Your task to perform on an android device: delete location history Image 0: 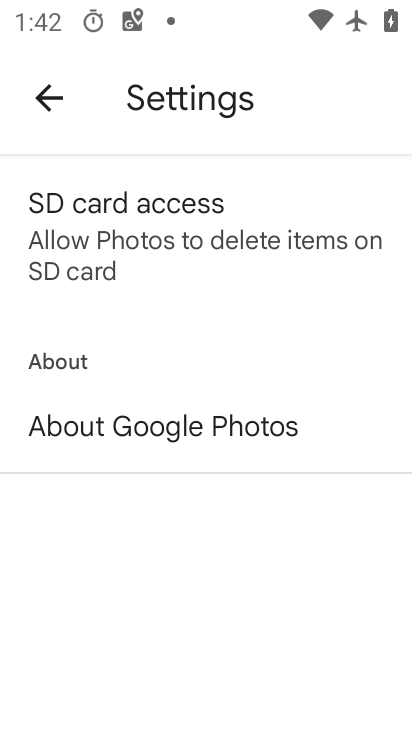
Step 0: press home button
Your task to perform on an android device: delete location history Image 1: 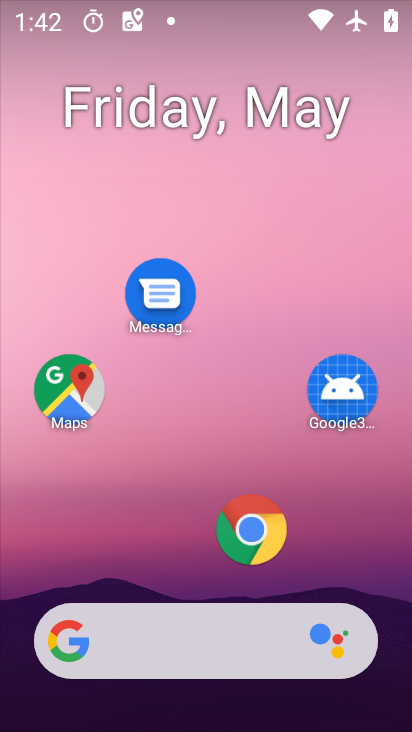
Step 1: drag from (229, 693) to (271, 431)
Your task to perform on an android device: delete location history Image 2: 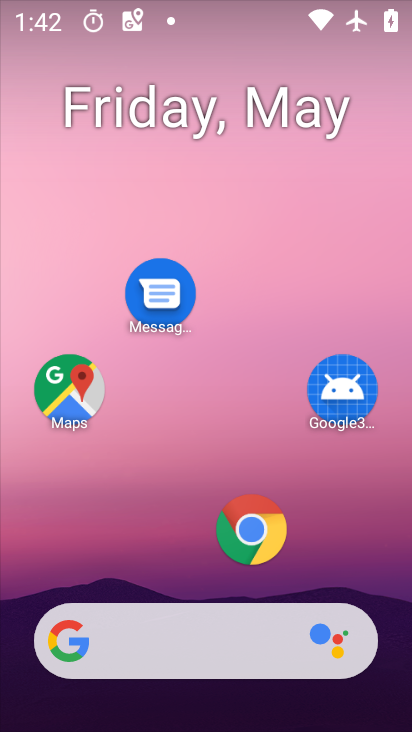
Step 2: drag from (184, 701) to (166, 202)
Your task to perform on an android device: delete location history Image 3: 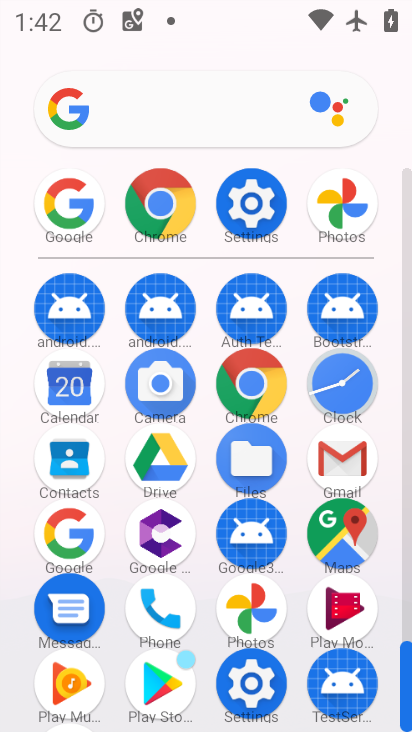
Step 3: click (233, 204)
Your task to perform on an android device: delete location history Image 4: 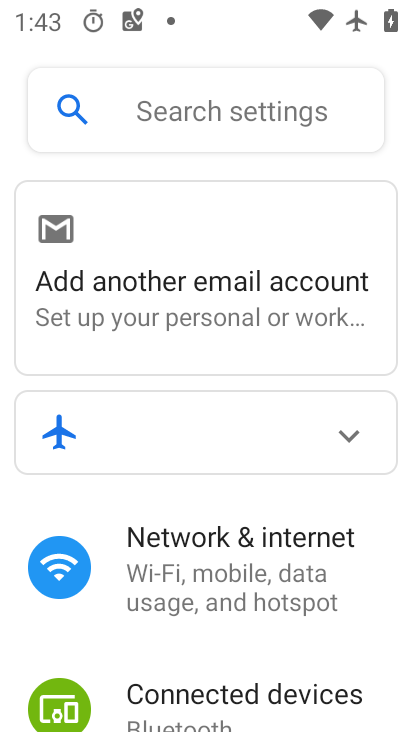
Step 4: drag from (243, 580) to (172, 177)
Your task to perform on an android device: delete location history Image 5: 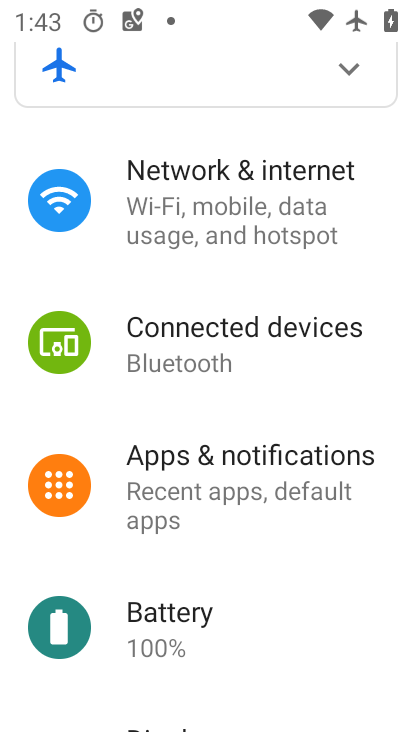
Step 5: drag from (252, 492) to (244, 299)
Your task to perform on an android device: delete location history Image 6: 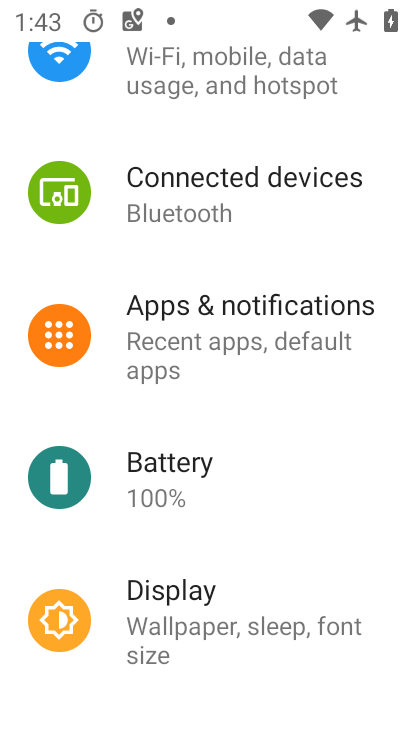
Step 6: drag from (215, 476) to (177, 108)
Your task to perform on an android device: delete location history Image 7: 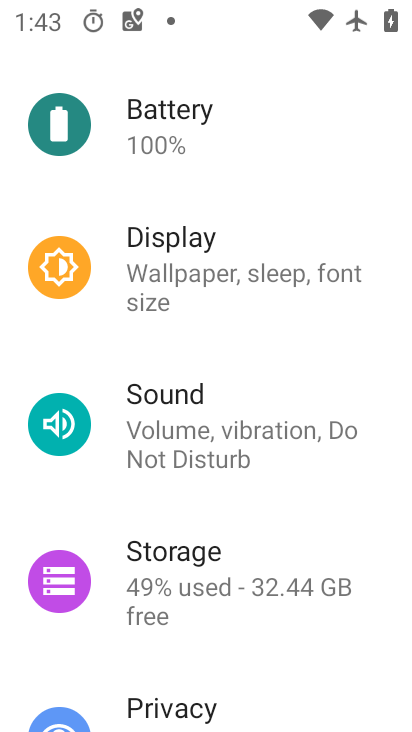
Step 7: drag from (220, 363) to (262, 704)
Your task to perform on an android device: delete location history Image 8: 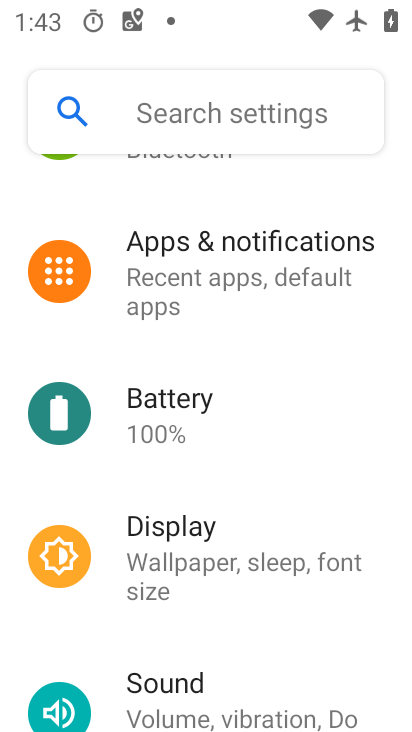
Step 8: click (230, 614)
Your task to perform on an android device: delete location history Image 9: 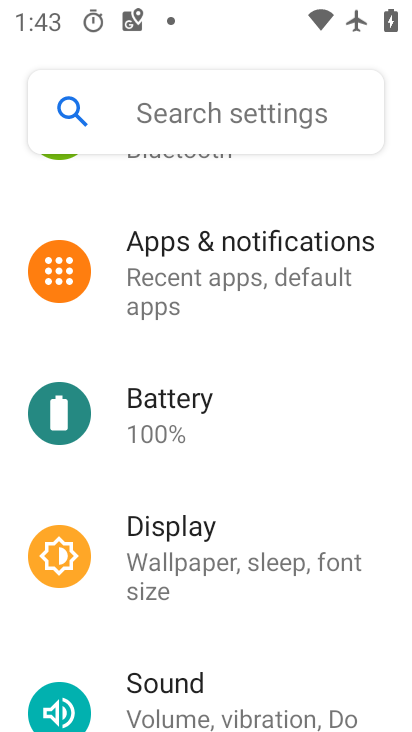
Step 9: drag from (212, 426) to (110, 69)
Your task to perform on an android device: delete location history Image 10: 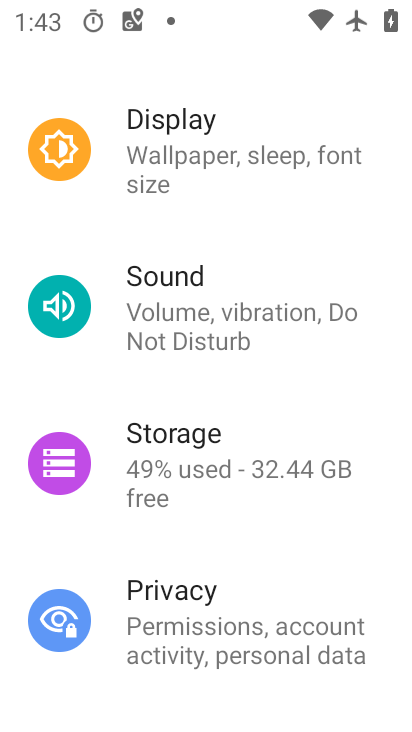
Step 10: drag from (228, 570) to (169, 167)
Your task to perform on an android device: delete location history Image 11: 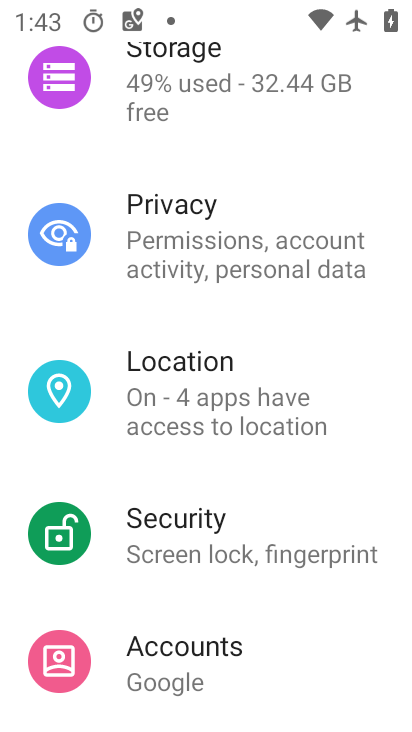
Step 11: click (238, 369)
Your task to perform on an android device: delete location history Image 12: 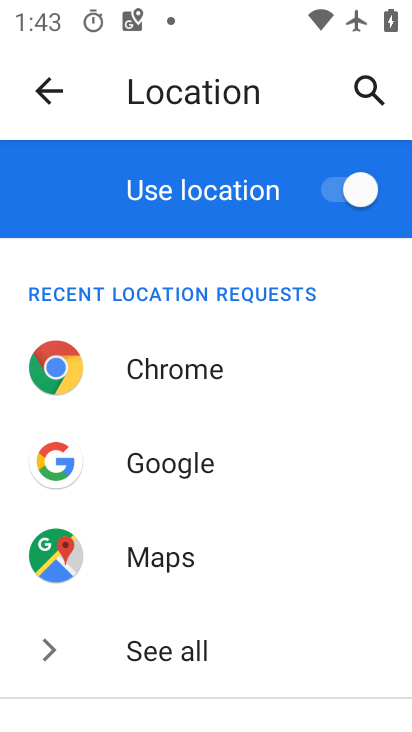
Step 12: drag from (215, 537) to (181, 214)
Your task to perform on an android device: delete location history Image 13: 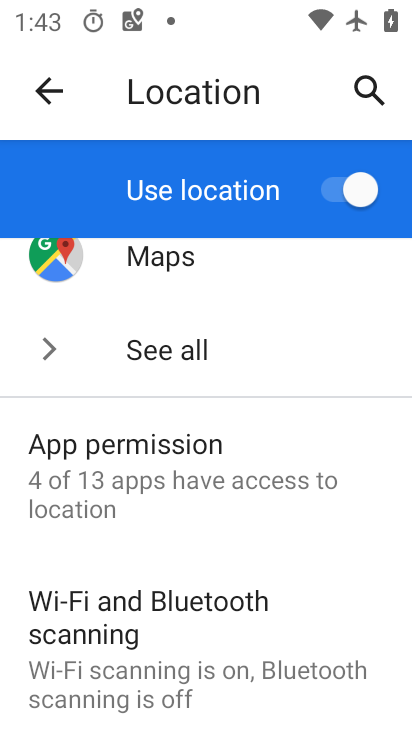
Step 13: drag from (194, 513) to (194, 321)
Your task to perform on an android device: delete location history Image 14: 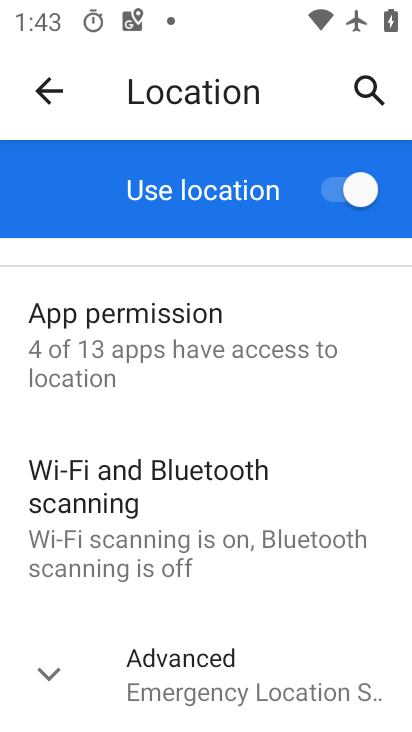
Step 14: click (250, 691)
Your task to perform on an android device: delete location history Image 15: 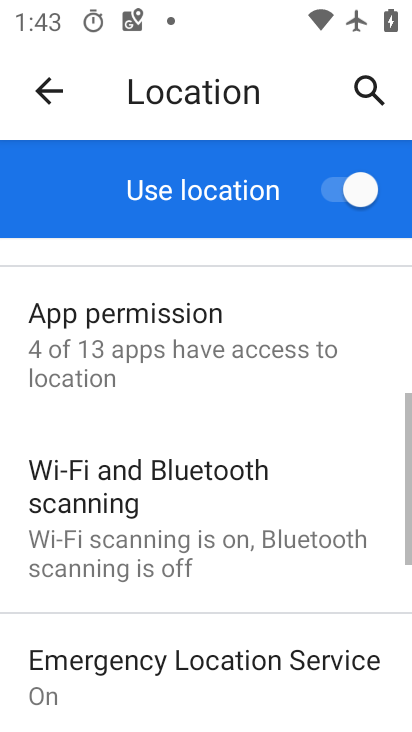
Step 15: drag from (243, 671) to (222, 344)
Your task to perform on an android device: delete location history Image 16: 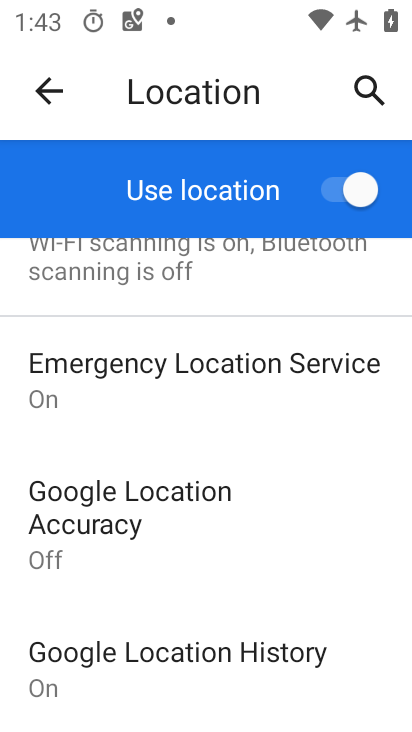
Step 16: click (293, 678)
Your task to perform on an android device: delete location history Image 17: 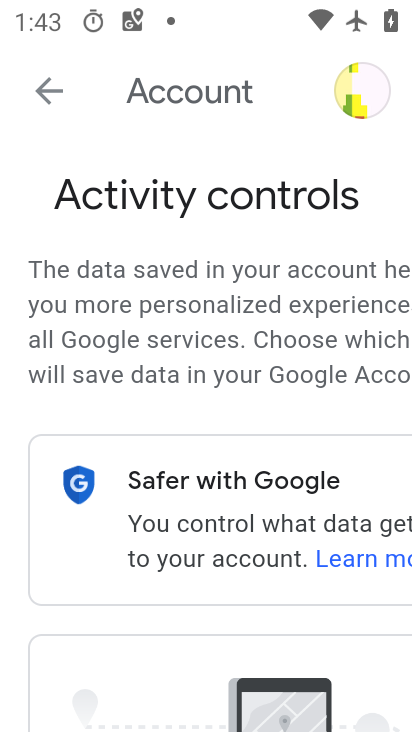
Step 17: drag from (281, 636) to (39, 225)
Your task to perform on an android device: delete location history Image 18: 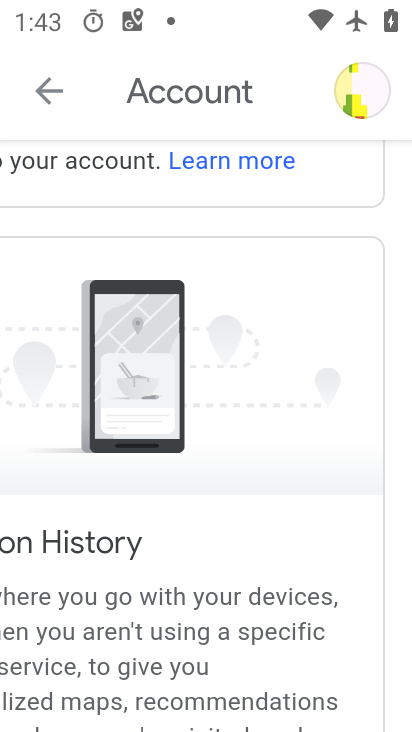
Step 18: drag from (218, 550) to (142, 152)
Your task to perform on an android device: delete location history Image 19: 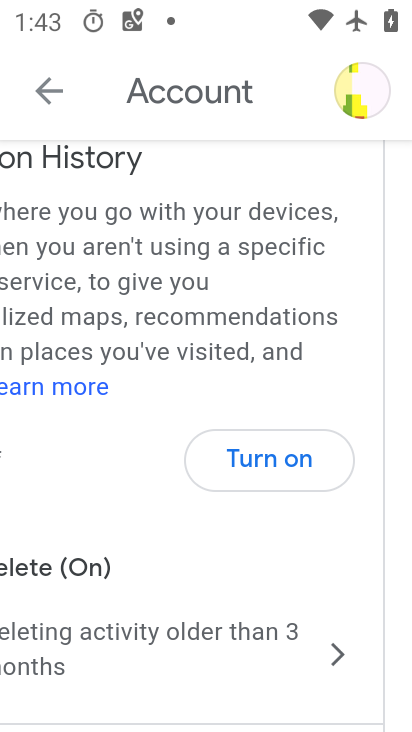
Step 19: drag from (186, 566) to (256, 281)
Your task to perform on an android device: delete location history Image 20: 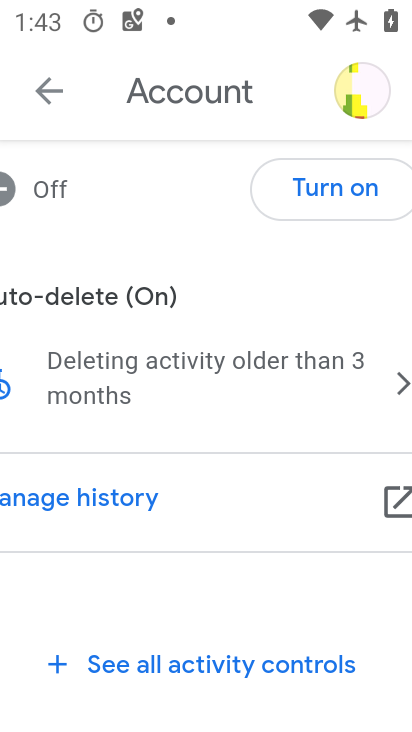
Step 20: click (276, 385)
Your task to perform on an android device: delete location history Image 21: 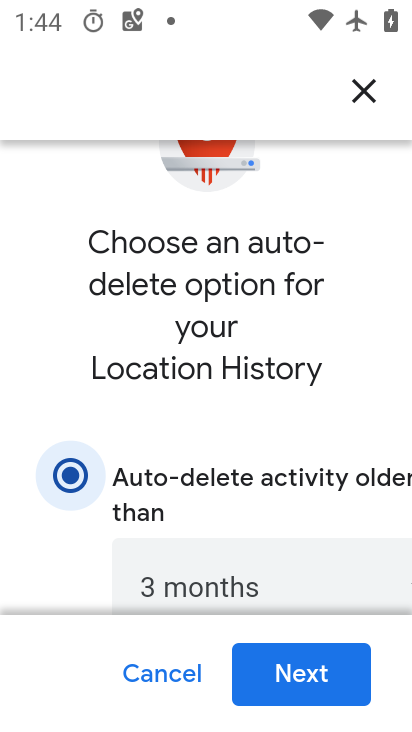
Step 21: drag from (321, 565) to (110, 293)
Your task to perform on an android device: delete location history Image 22: 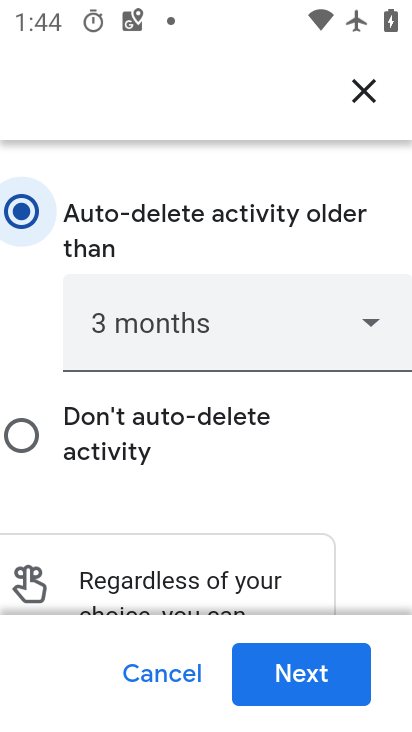
Step 22: drag from (148, 509) to (69, 240)
Your task to perform on an android device: delete location history Image 23: 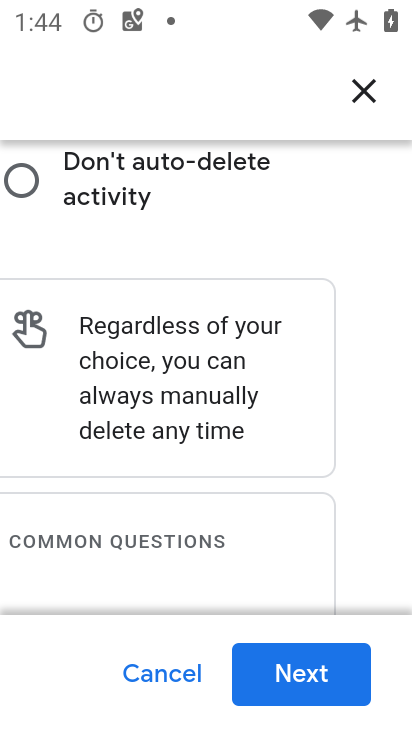
Step 23: drag from (158, 483) to (40, 246)
Your task to perform on an android device: delete location history Image 24: 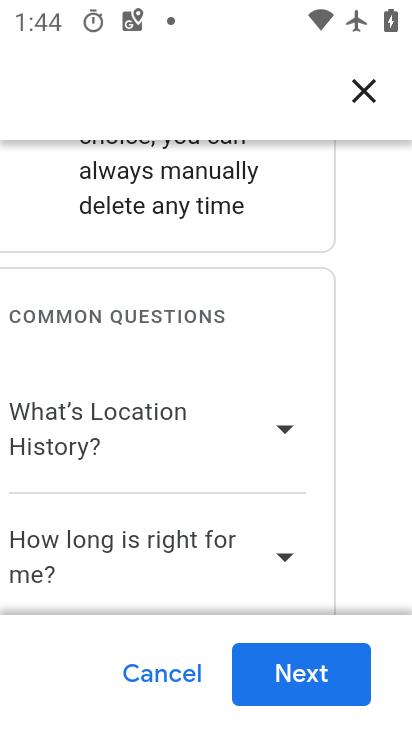
Step 24: click (323, 680)
Your task to perform on an android device: delete location history Image 25: 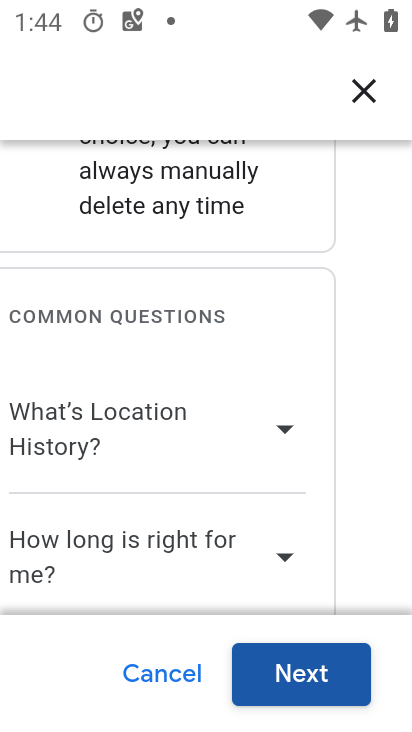
Step 25: click (324, 680)
Your task to perform on an android device: delete location history Image 26: 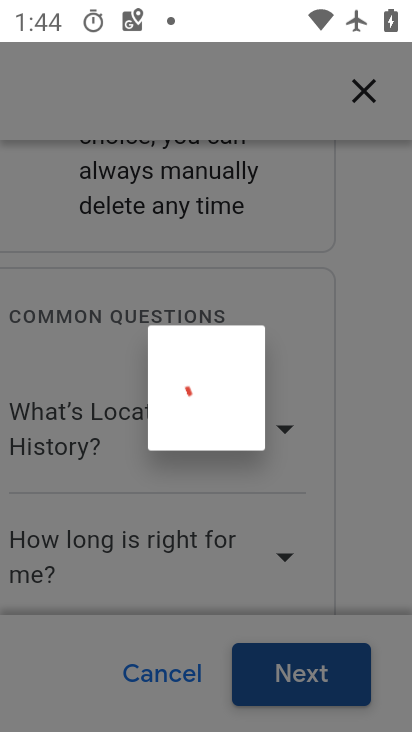
Step 26: click (324, 680)
Your task to perform on an android device: delete location history Image 27: 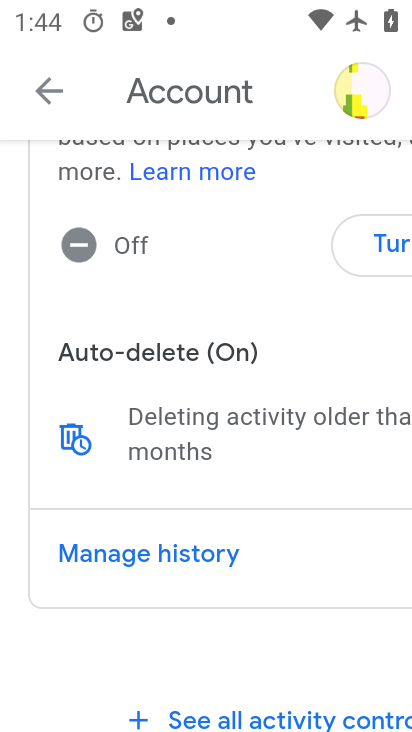
Step 27: task complete